Your task to perform on an android device: turn on bluetooth scan Image 0: 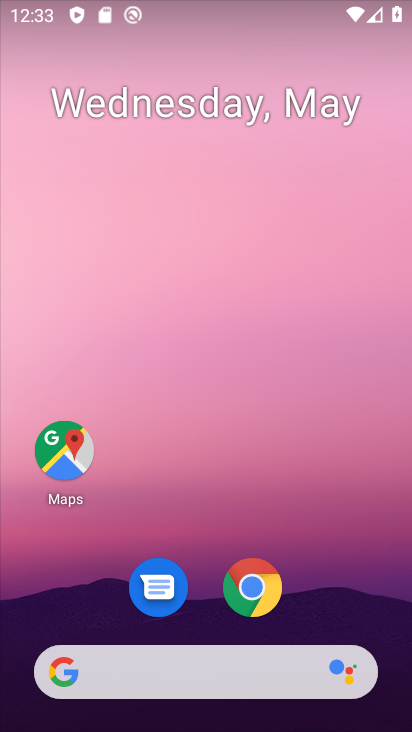
Step 0: drag from (389, 605) to (373, 187)
Your task to perform on an android device: turn on bluetooth scan Image 1: 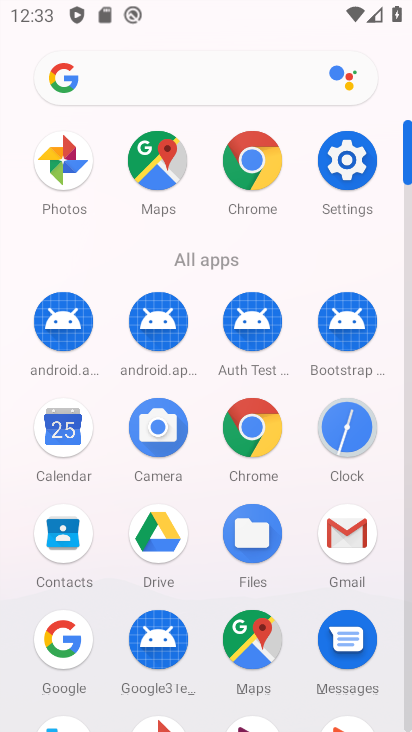
Step 1: click (356, 166)
Your task to perform on an android device: turn on bluetooth scan Image 2: 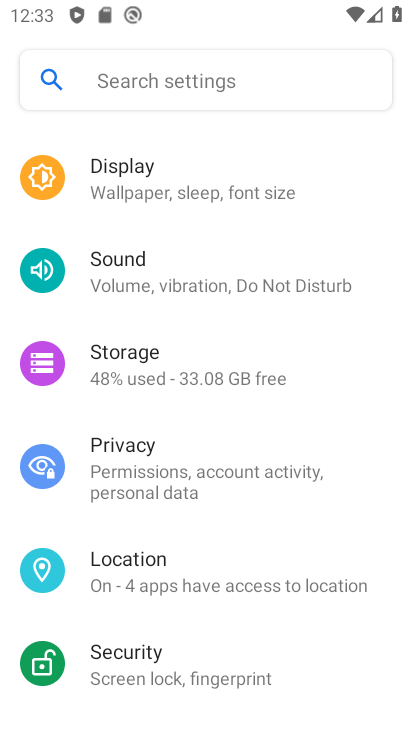
Step 2: drag from (367, 445) to (365, 364)
Your task to perform on an android device: turn on bluetooth scan Image 3: 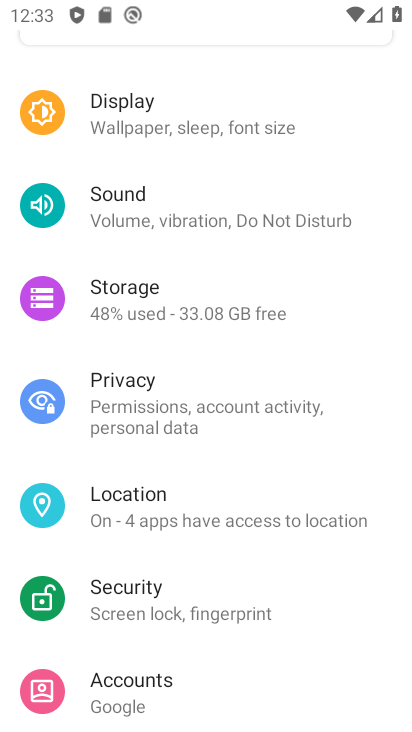
Step 3: drag from (360, 447) to (381, 328)
Your task to perform on an android device: turn on bluetooth scan Image 4: 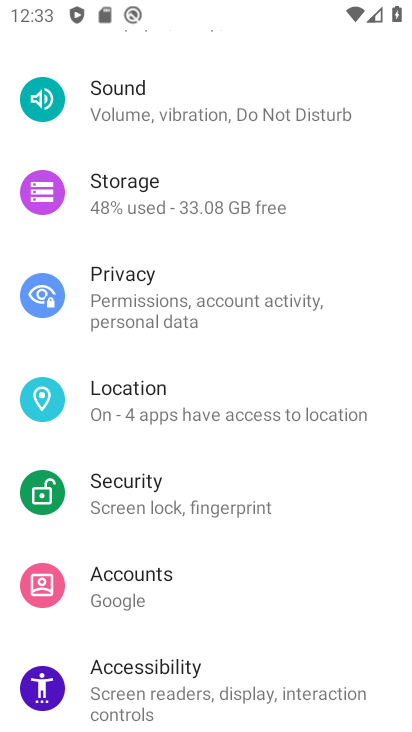
Step 4: drag from (365, 514) to (360, 417)
Your task to perform on an android device: turn on bluetooth scan Image 5: 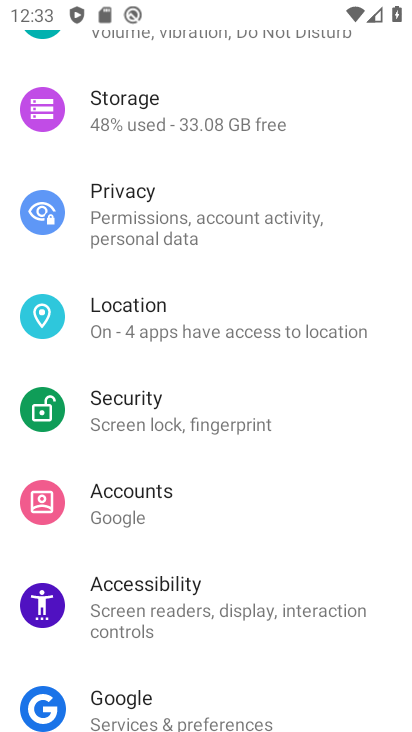
Step 5: drag from (339, 526) to (337, 458)
Your task to perform on an android device: turn on bluetooth scan Image 6: 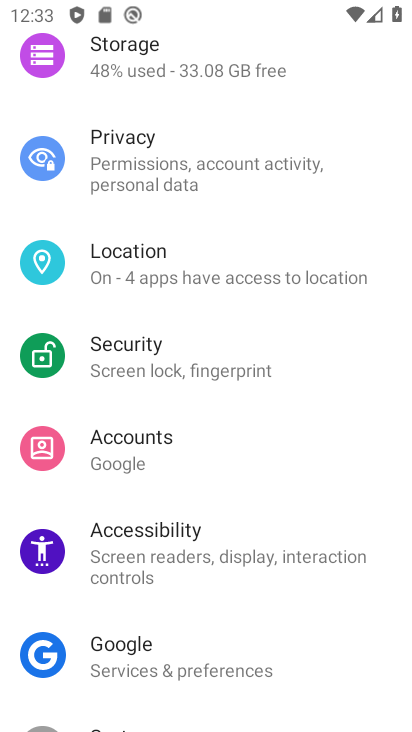
Step 6: drag from (346, 557) to (363, 444)
Your task to perform on an android device: turn on bluetooth scan Image 7: 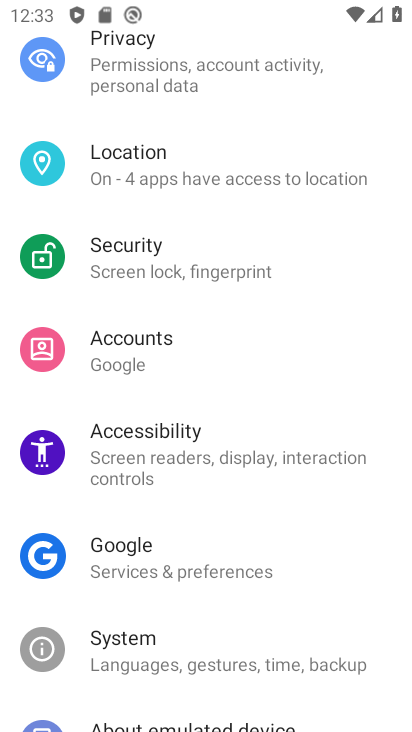
Step 7: drag from (364, 577) to (380, 421)
Your task to perform on an android device: turn on bluetooth scan Image 8: 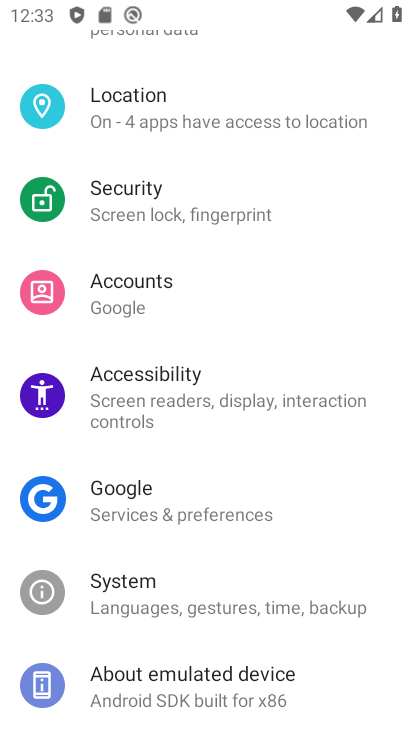
Step 8: drag from (353, 568) to (356, 485)
Your task to perform on an android device: turn on bluetooth scan Image 9: 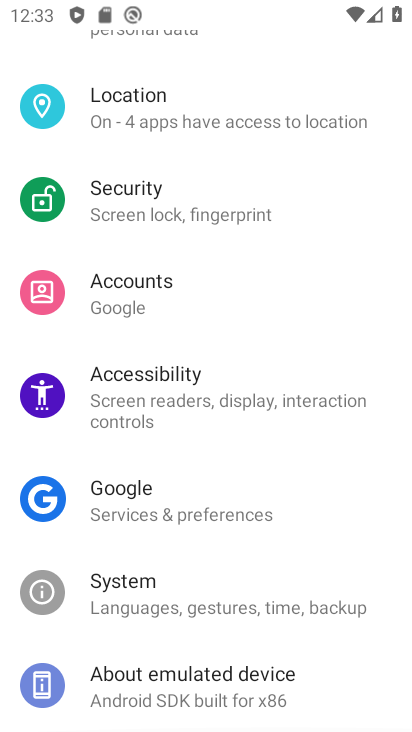
Step 9: drag from (355, 442) to (350, 512)
Your task to perform on an android device: turn on bluetooth scan Image 10: 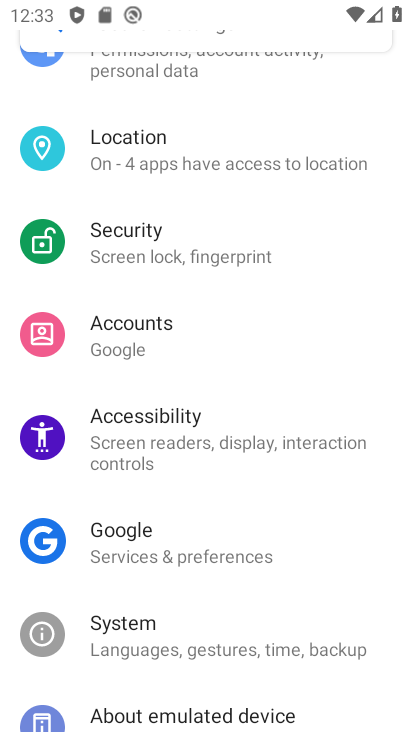
Step 10: drag from (366, 393) to (364, 484)
Your task to perform on an android device: turn on bluetooth scan Image 11: 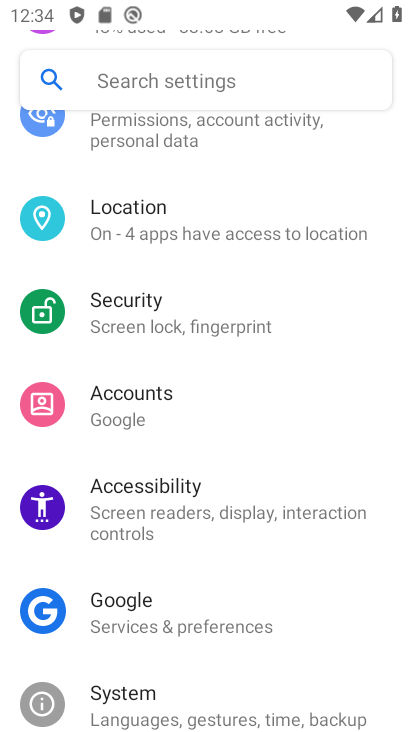
Step 11: drag from (361, 357) to (359, 448)
Your task to perform on an android device: turn on bluetooth scan Image 12: 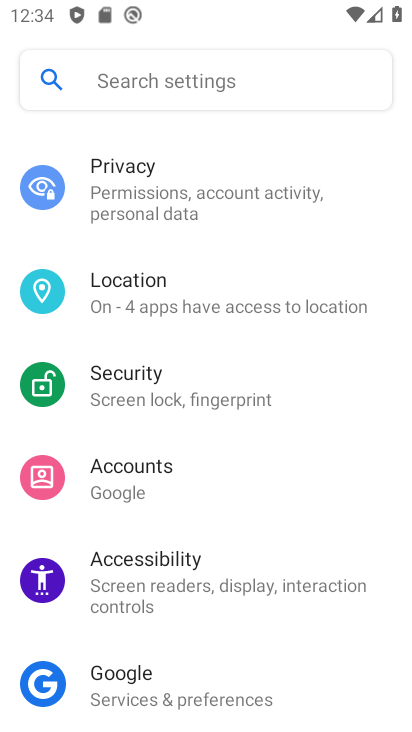
Step 12: drag from (342, 352) to (333, 445)
Your task to perform on an android device: turn on bluetooth scan Image 13: 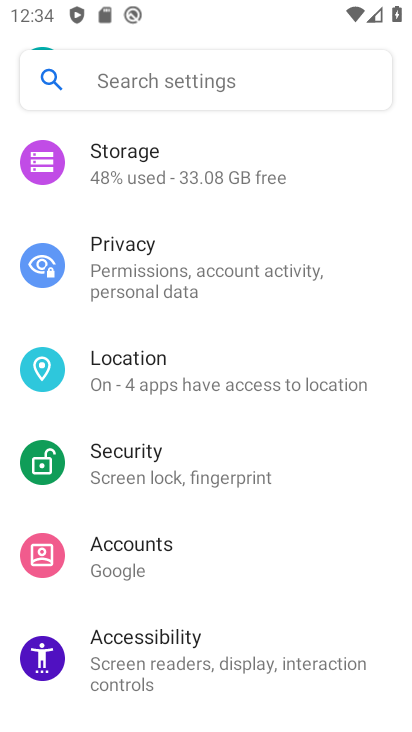
Step 13: click (321, 372)
Your task to perform on an android device: turn on bluetooth scan Image 14: 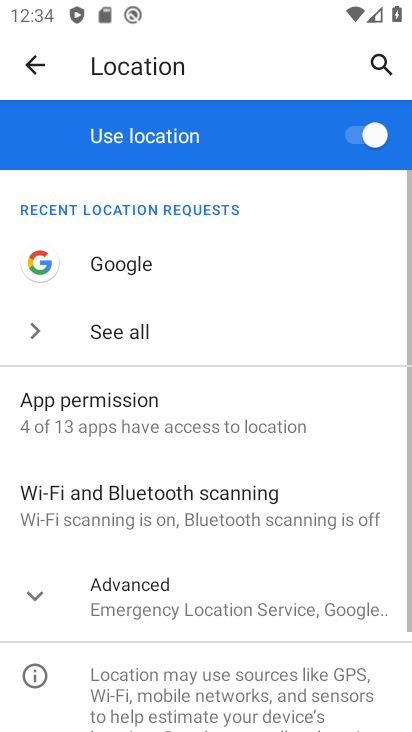
Step 14: click (283, 509)
Your task to perform on an android device: turn on bluetooth scan Image 15: 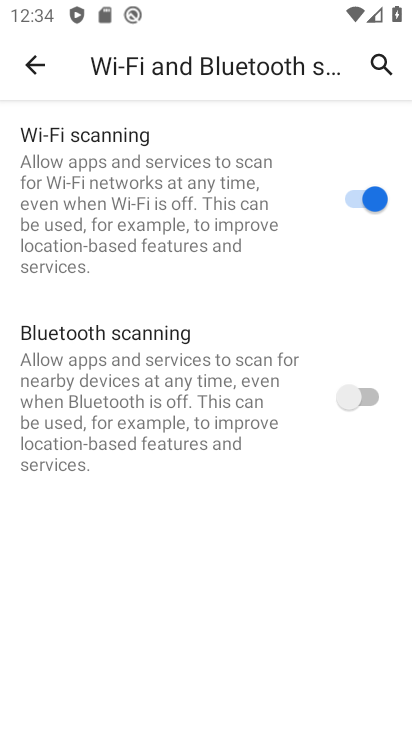
Step 15: click (350, 409)
Your task to perform on an android device: turn on bluetooth scan Image 16: 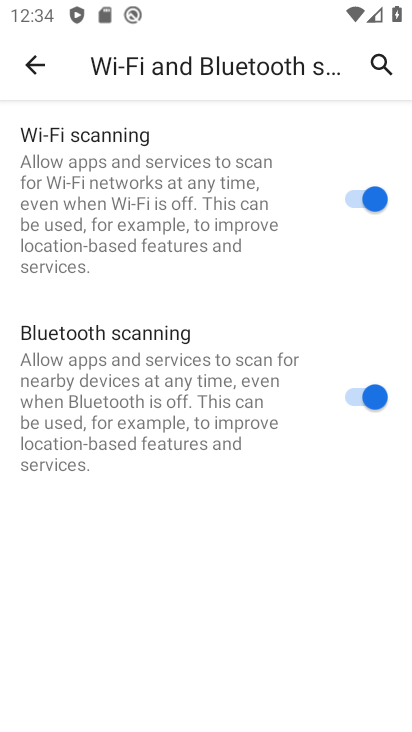
Step 16: task complete